Your task to perform on an android device: Open Yahoo.com Image 0: 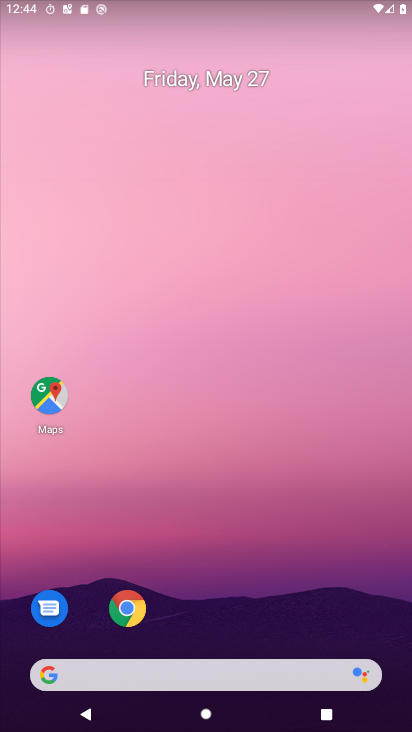
Step 0: click (134, 605)
Your task to perform on an android device: Open Yahoo.com Image 1: 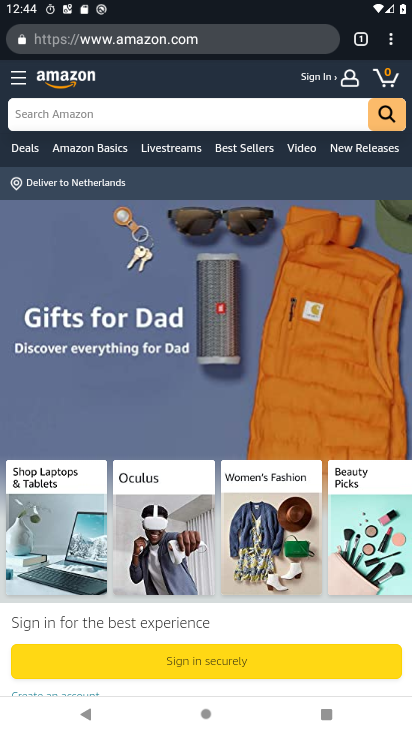
Step 1: click (243, 35)
Your task to perform on an android device: Open Yahoo.com Image 2: 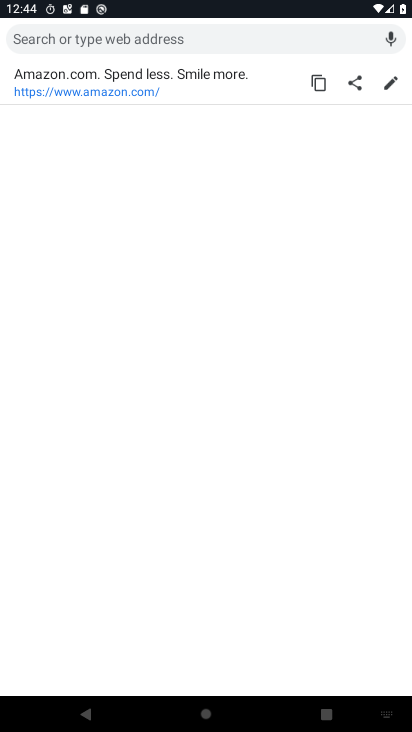
Step 2: type "Yahoo.com"
Your task to perform on an android device: Open Yahoo.com Image 3: 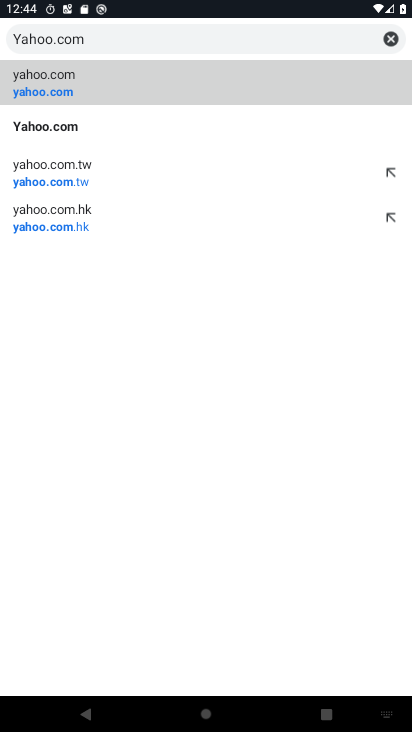
Step 3: click (53, 91)
Your task to perform on an android device: Open Yahoo.com Image 4: 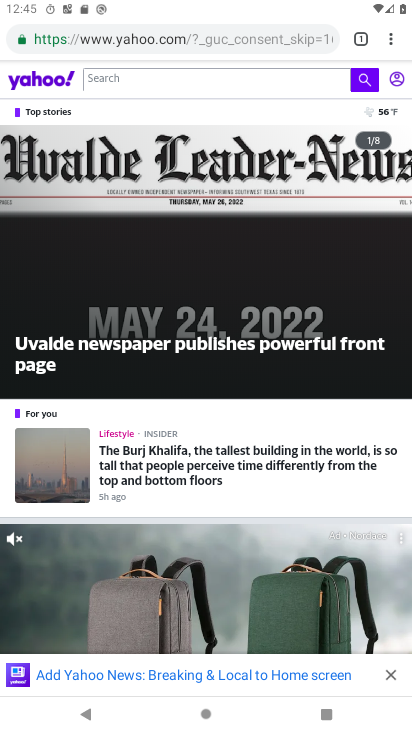
Step 4: task complete